Your task to perform on an android device: Go to Wikipedia Image 0: 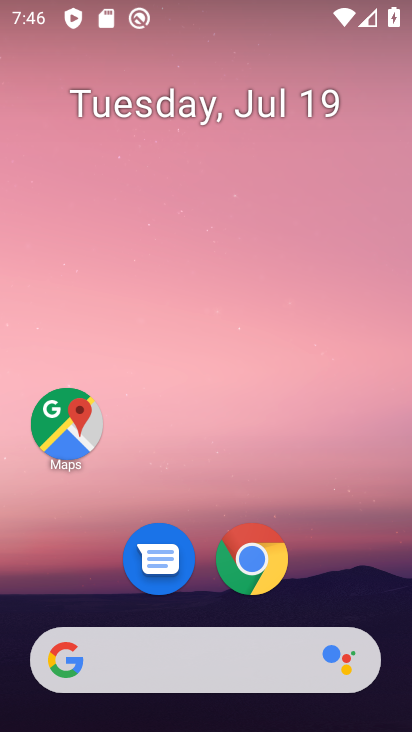
Step 0: click (248, 557)
Your task to perform on an android device: Go to Wikipedia Image 1: 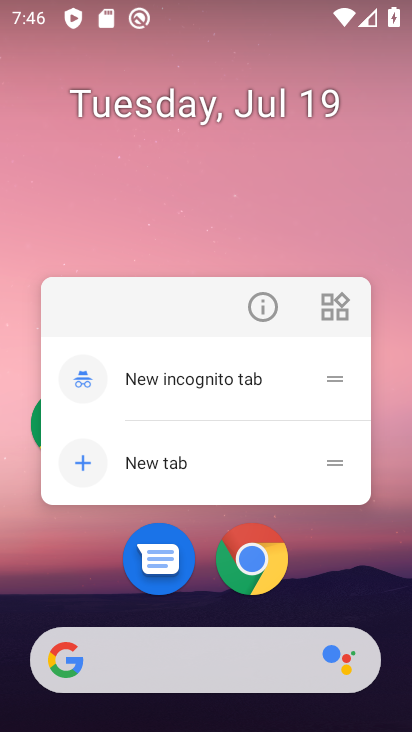
Step 1: click (265, 562)
Your task to perform on an android device: Go to Wikipedia Image 2: 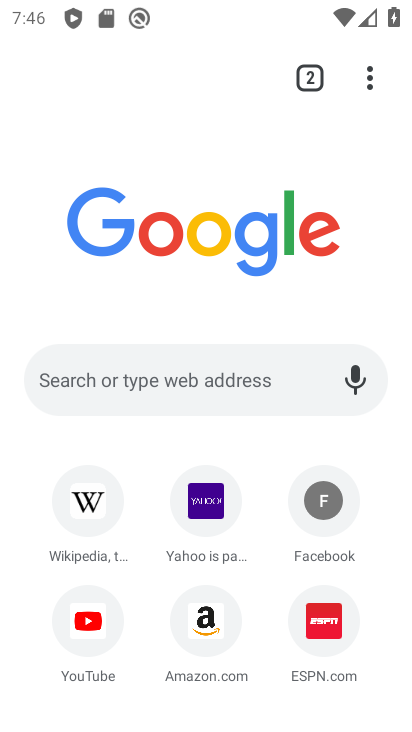
Step 2: click (81, 511)
Your task to perform on an android device: Go to Wikipedia Image 3: 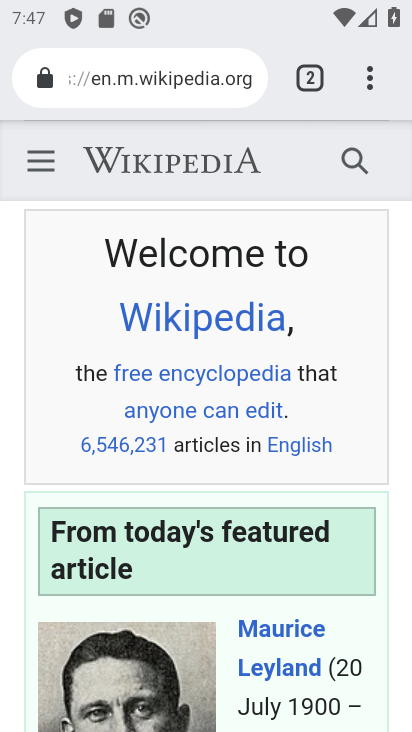
Step 3: task complete